Your task to perform on an android device: Open calendar and show me the third week of next month Image 0: 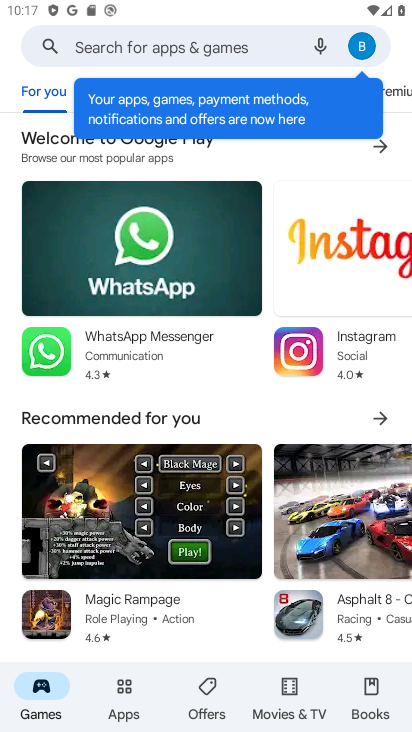
Step 0: press home button
Your task to perform on an android device: Open calendar and show me the third week of next month Image 1: 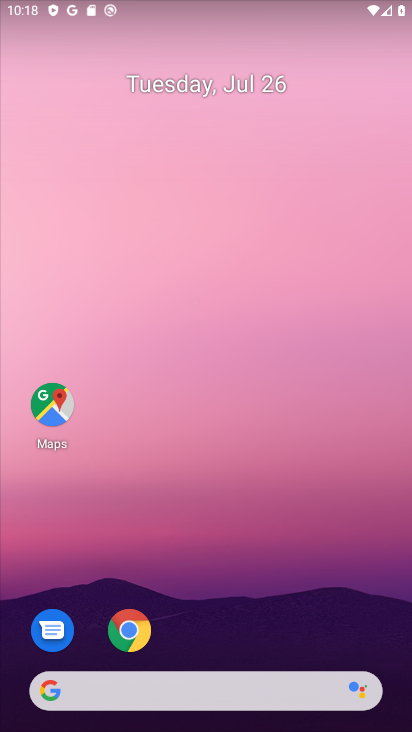
Step 1: drag from (275, 718) to (341, 20)
Your task to perform on an android device: Open calendar and show me the third week of next month Image 2: 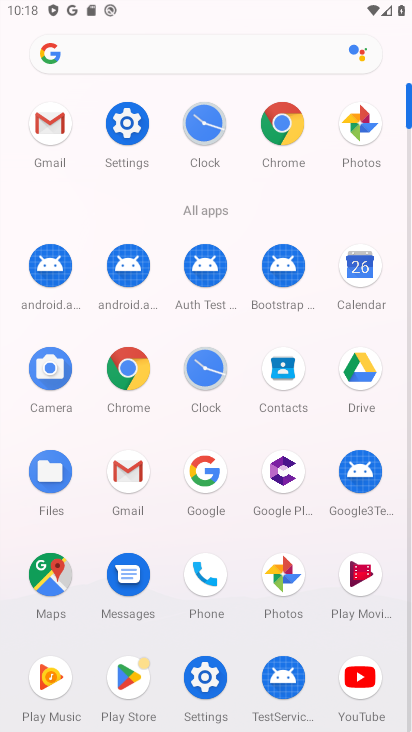
Step 2: click (354, 271)
Your task to perform on an android device: Open calendar and show me the third week of next month Image 3: 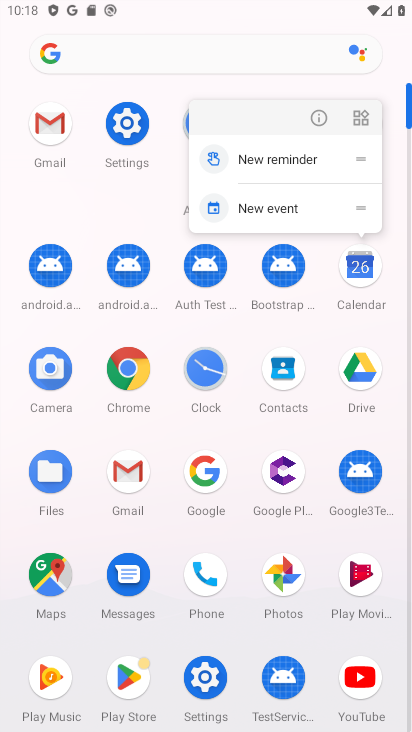
Step 3: click (354, 271)
Your task to perform on an android device: Open calendar and show me the third week of next month Image 4: 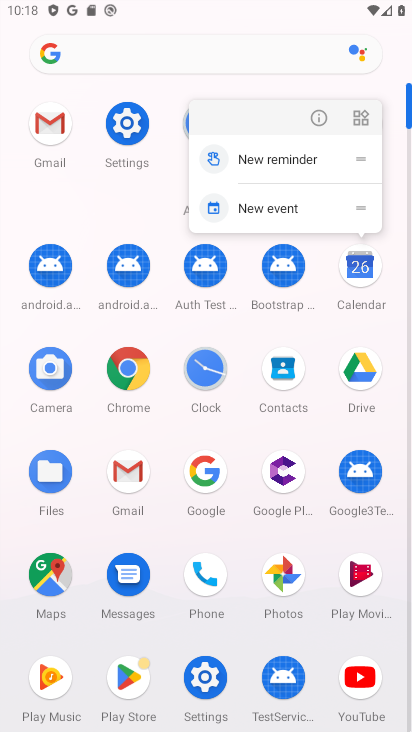
Step 4: click (354, 271)
Your task to perform on an android device: Open calendar and show me the third week of next month Image 5: 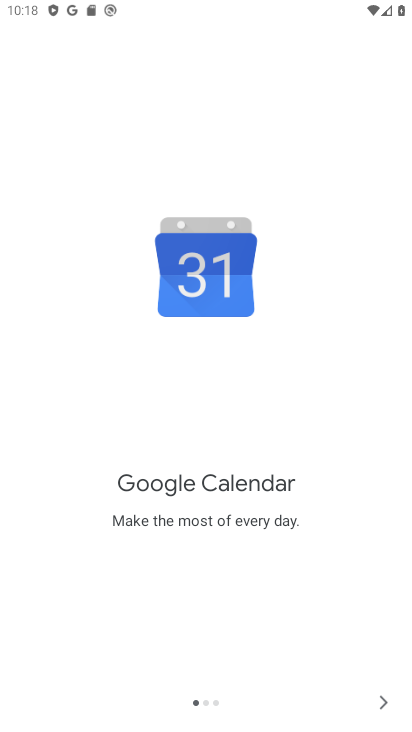
Step 5: click (391, 700)
Your task to perform on an android device: Open calendar and show me the third week of next month Image 6: 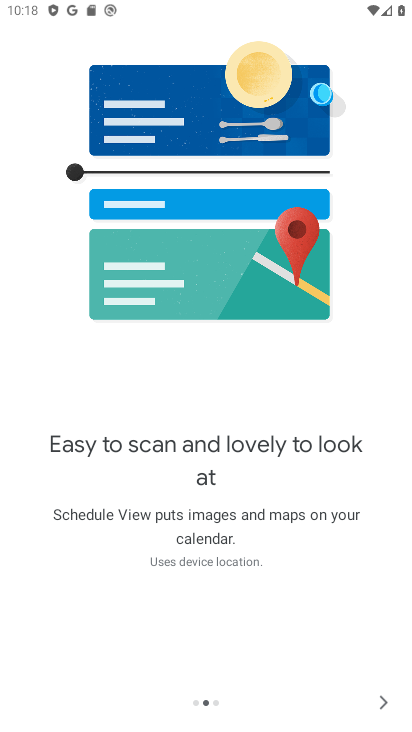
Step 6: click (391, 700)
Your task to perform on an android device: Open calendar and show me the third week of next month Image 7: 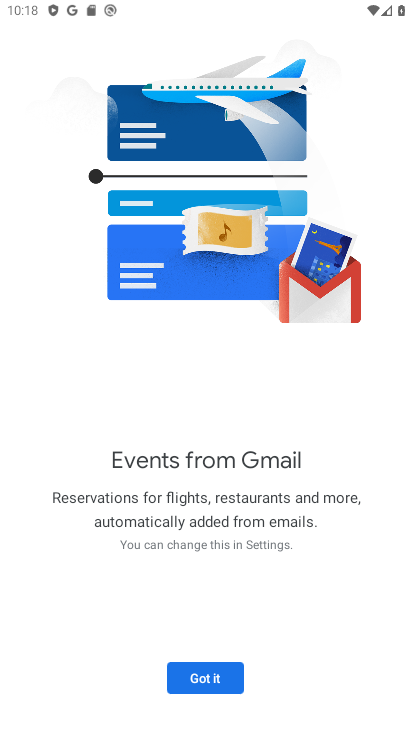
Step 7: click (187, 685)
Your task to perform on an android device: Open calendar and show me the third week of next month Image 8: 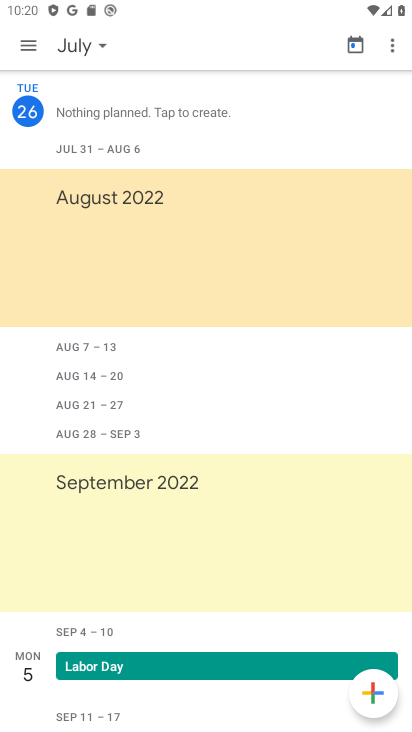
Step 8: click (79, 45)
Your task to perform on an android device: Open calendar and show me the third week of next month Image 9: 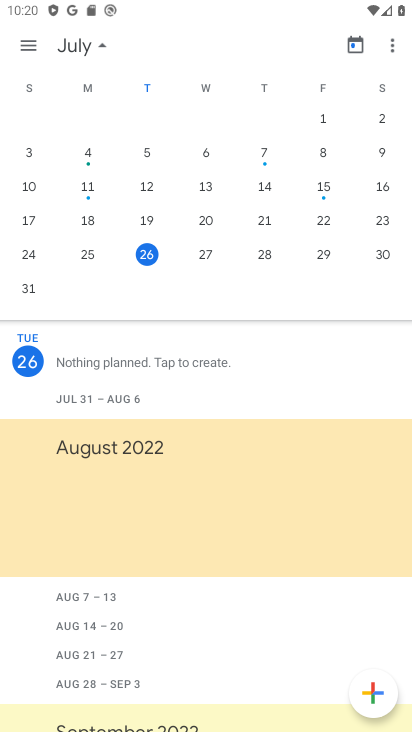
Step 9: drag from (383, 225) to (0, 184)
Your task to perform on an android device: Open calendar and show me the third week of next month Image 10: 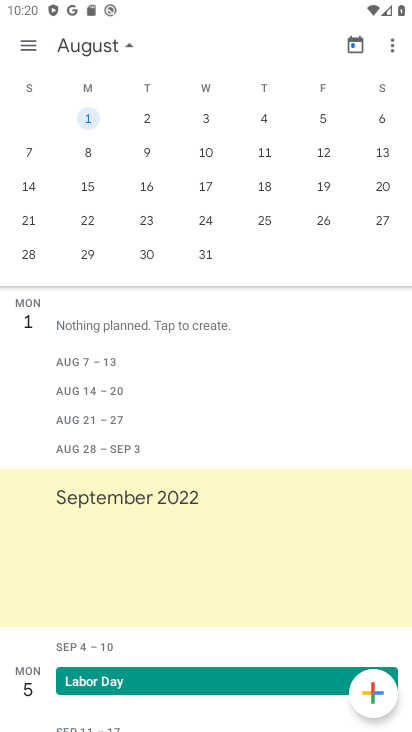
Step 10: click (37, 189)
Your task to perform on an android device: Open calendar and show me the third week of next month Image 11: 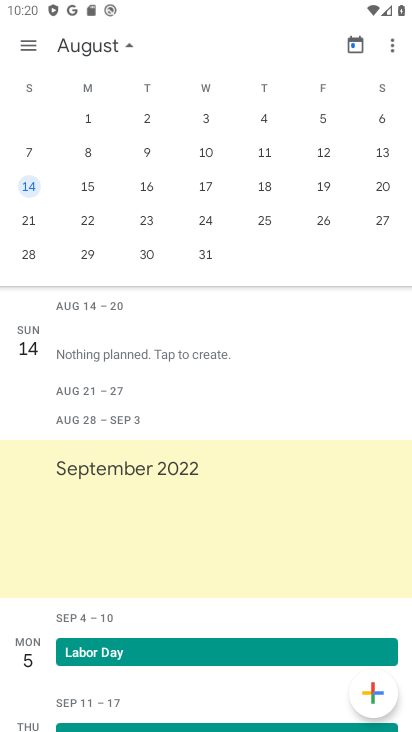
Step 11: task complete